Your task to perform on an android device: clear all cookies in the chrome app Image 0: 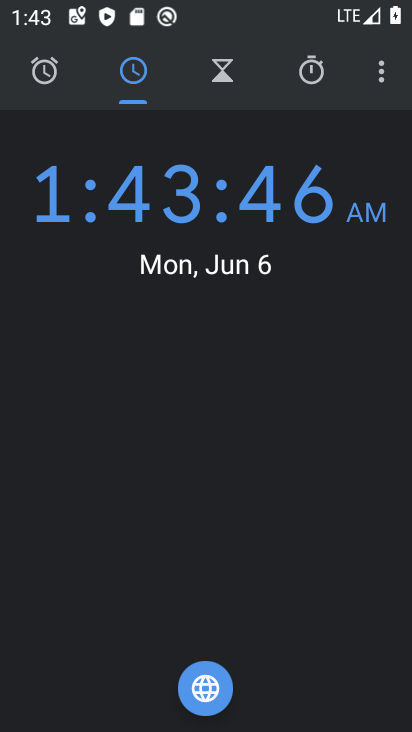
Step 0: press home button
Your task to perform on an android device: clear all cookies in the chrome app Image 1: 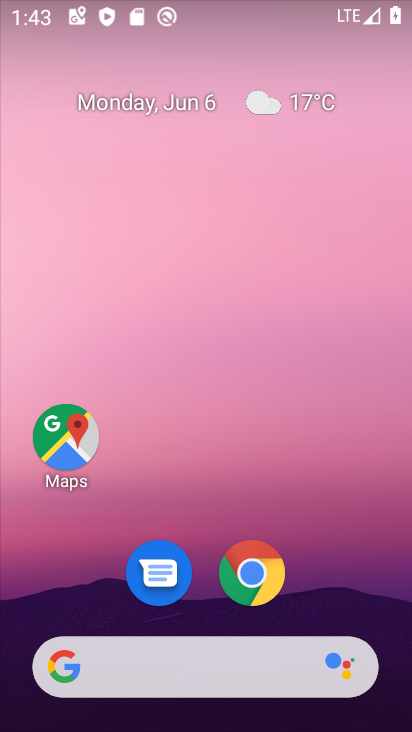
Step 1: drag from (375, 573) to (377, 167)
Your task to perform on an android device: clear all cookies in the chrome app Image 2: 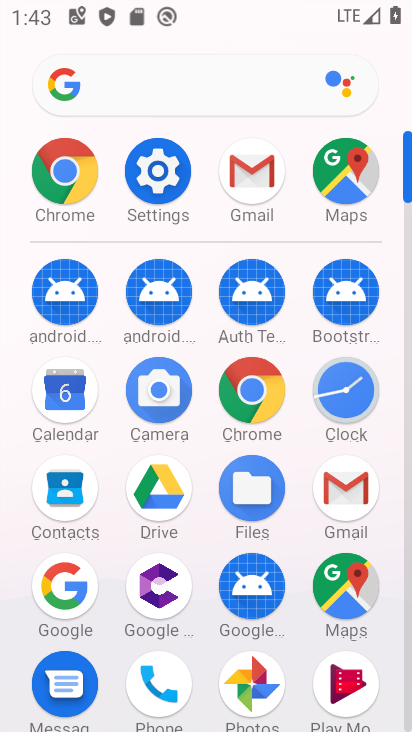
Step 2: click (256, 384)
Your task to perform on an android device: clear all cookies in the chrome app Image 3: 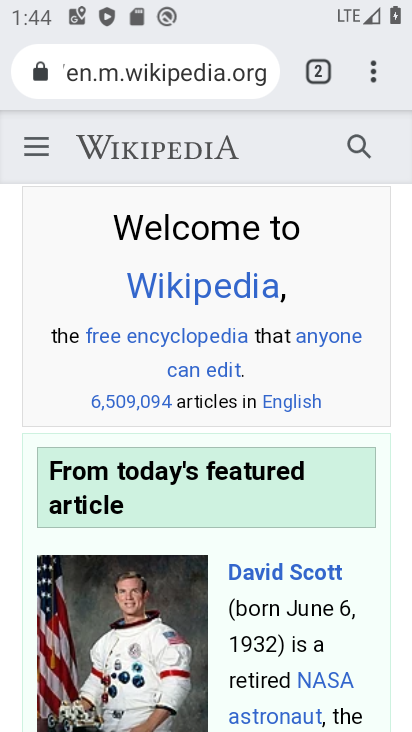
Step 3: click (373, 83)
Your task to perform on an android device: clear all cookies in the chrome app Image 4: 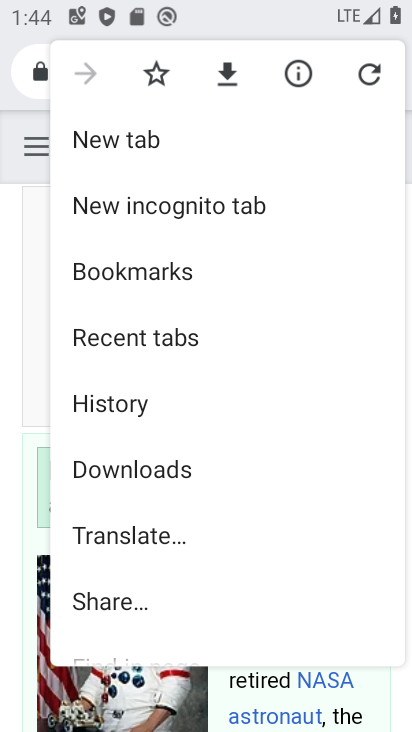
Step 4: drag from (308, 451) to (320, 267)
Your task to perform on an android device: clear all cookies in the chrome app Image 5: 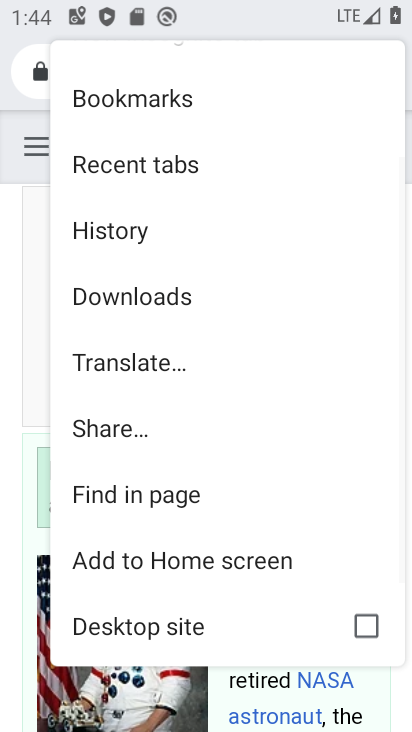
Step 5: drag from (264, 481) to (280, 298)
Your task to perform on an android device: clear all cookies in the chrome app Image 6: 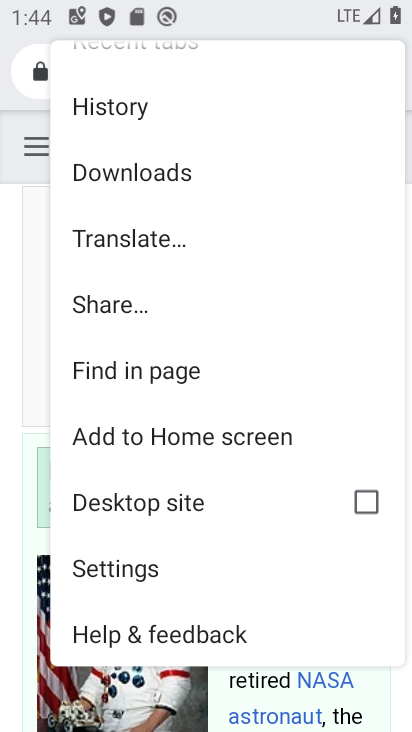
Step 6: click (174, 570)
Your task to perform on an android device: clear all cookies in the chrome app Image 7: 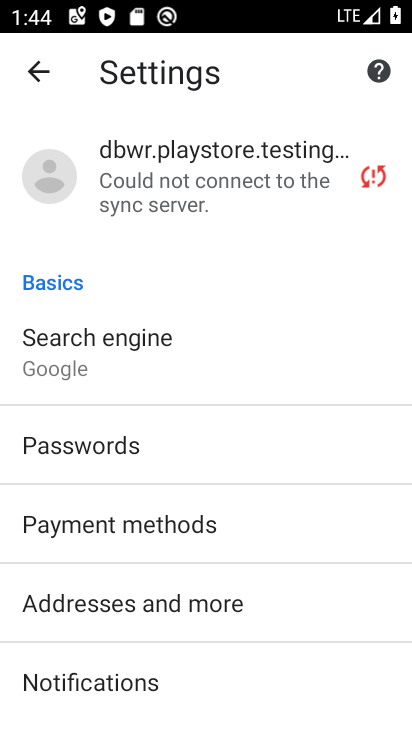
Step 7: drag from (282, 603) to (293, 480)
Your task to perform on an android device: clear all cookies in the chrome app Image 8: 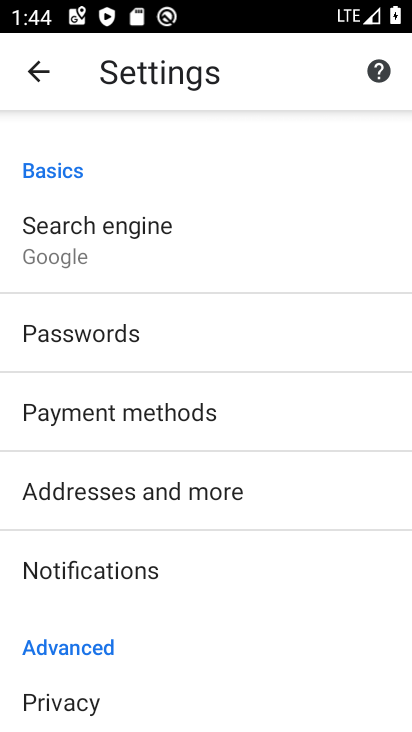
Step 8: drag from (351, 562) to (341, 399)
Your task to perform on an android device: clear all cookies in the chrome app Image 9: 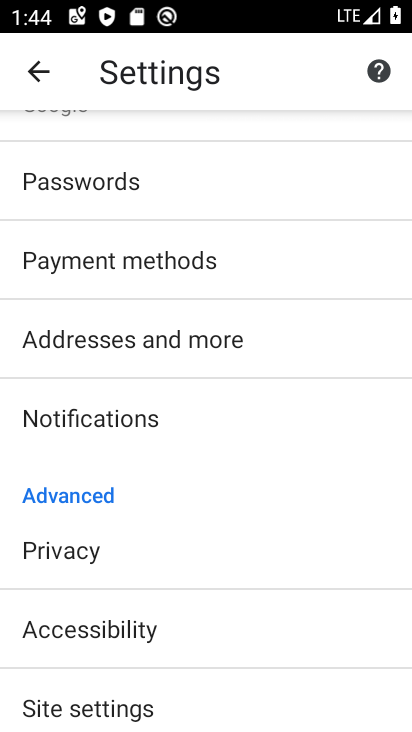
Step 9: click (137, 563)
Your task to perform on an android device: clear all cookies in the chrome app Image 10: 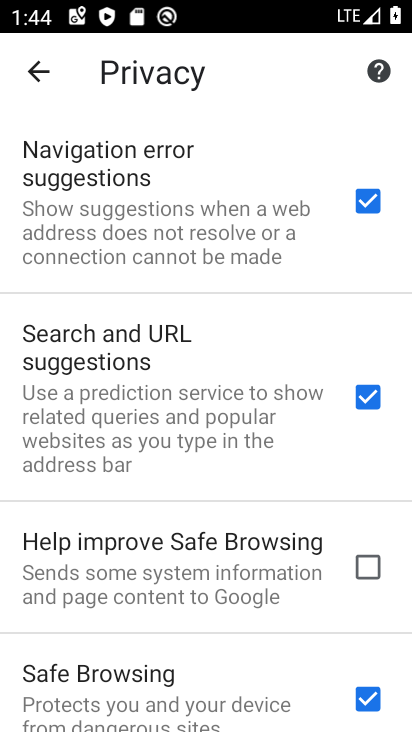
Step 10: drag from (290, 579) to (294, 427)
Your task to perform on an android device: clear all cookies in the chrome app Image 11: 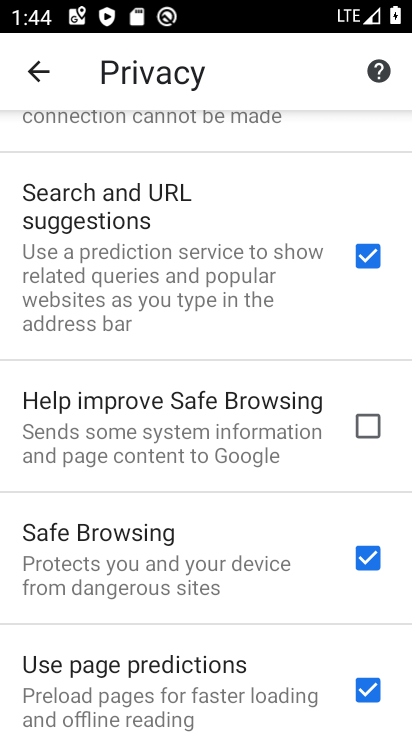
Step 11: drag from (300, 597) to (294, 500)
Your task to perform on an android device: clear all cookies in the chrome app Image 12: 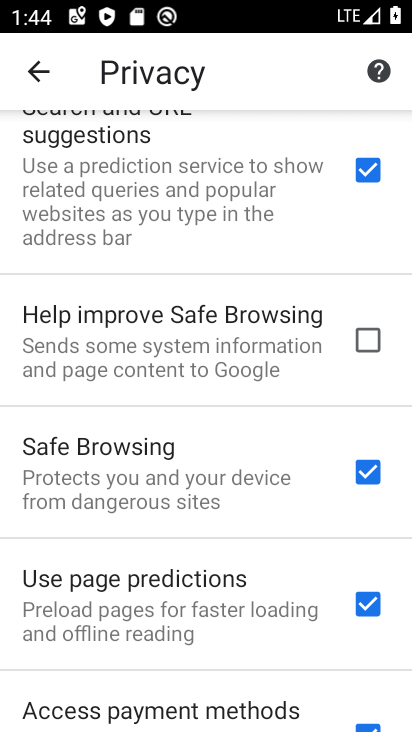
Step 12: drag from (273, 538) to (262, 344)
Your task to perform on an android device: clear all cookies in the chrome app Image 13: 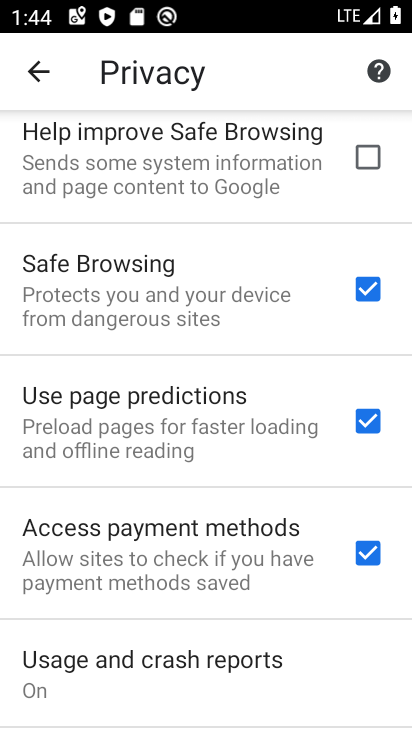
Step 13: drag from (273, 577) to (277, 405)
Your task to perform on an android device: clear all cookies in the chrome app Image 14: 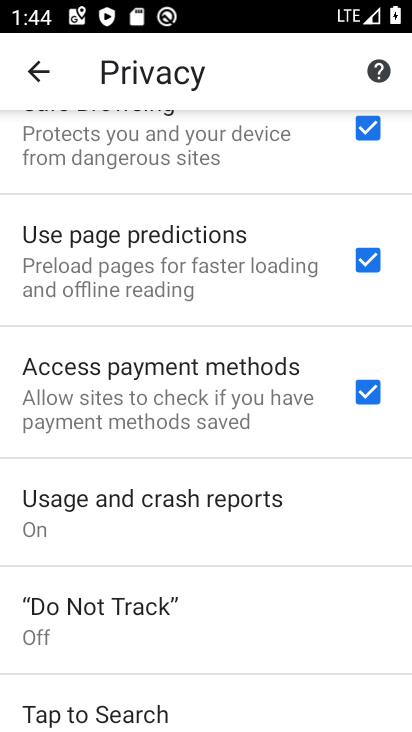
Step 14: drag from (325, 610) to (323, 412)
Your task to perform on an android device: clear all cookies in the chrome app Image 15: 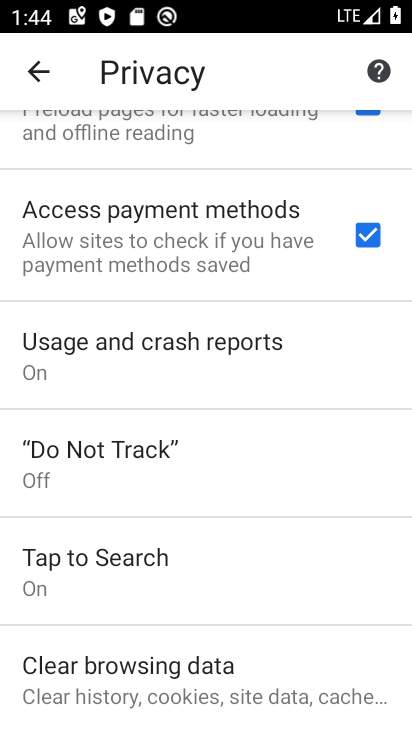
Step 15: click (296, 677)
Your task to perform on an android device: clear all cookies in the chrome app Image 16: 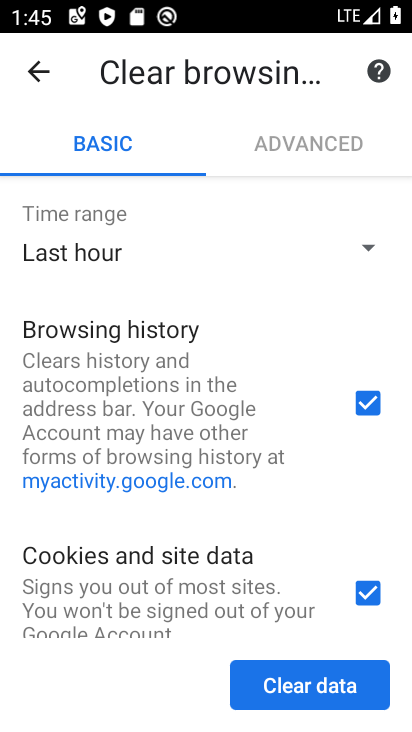
Step 16: drag from (267, 553) to (269, 444)
Your task to perform on an android device: clear all cookies in the chrome app Image 17: 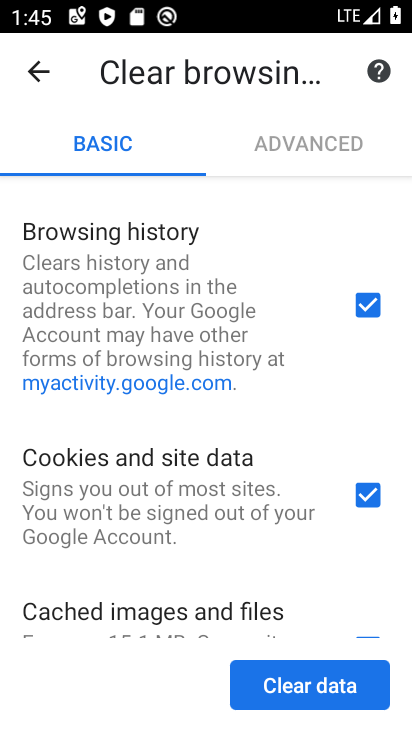
Step 17: click (301, 678)
Your task to perform on an android device: clear all cookies in the chrome app Image 18: 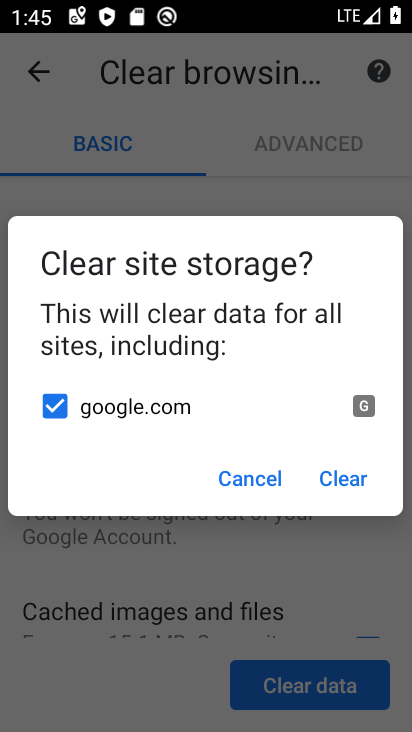
Step 18: click (345, 490)
Your task to perform on an android device: clear all cookies in the chrome app Image 19: 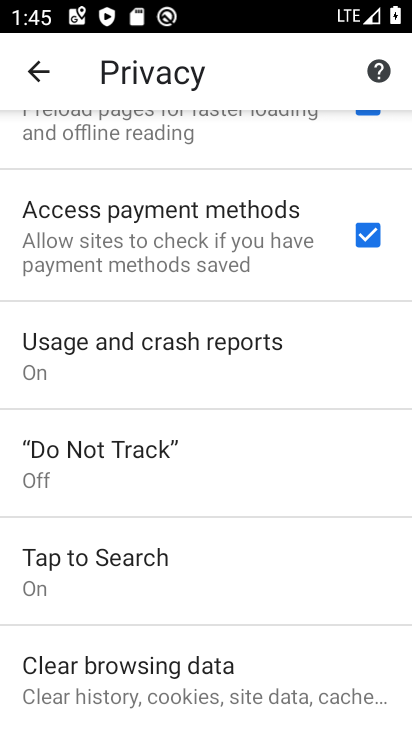
Step 19: task complete